Your task to perform on an android device: search for starred emails in the gmail app Image 0: 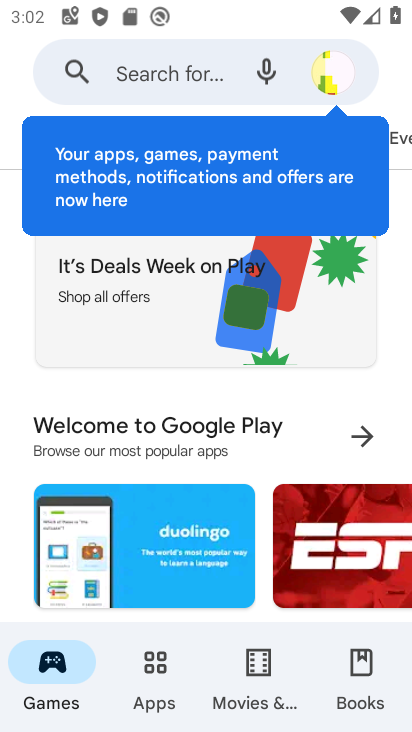
Step 0: press home button
Your task to perform on an android device: search for starred emails in the gmail app Image 1: 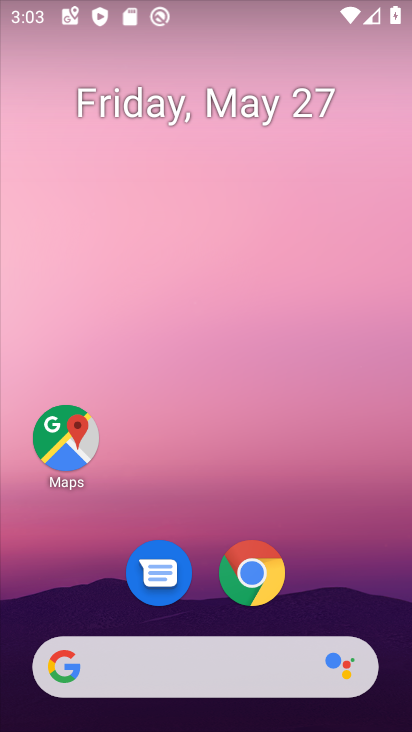
Step 1: drag from (224, 506) to (256, 32)
Your task to perform on an android device: search for starred emails in the gmail app Image 2: 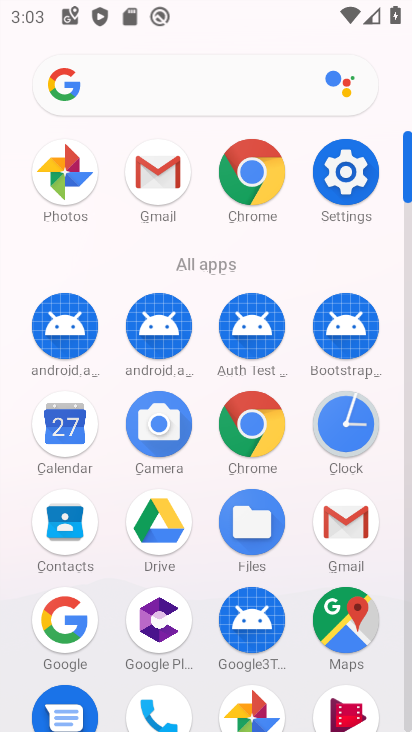
Step 2: click (161, 170)
Your task to perform on an android device: search for starred emails in the gmail app Image 3: 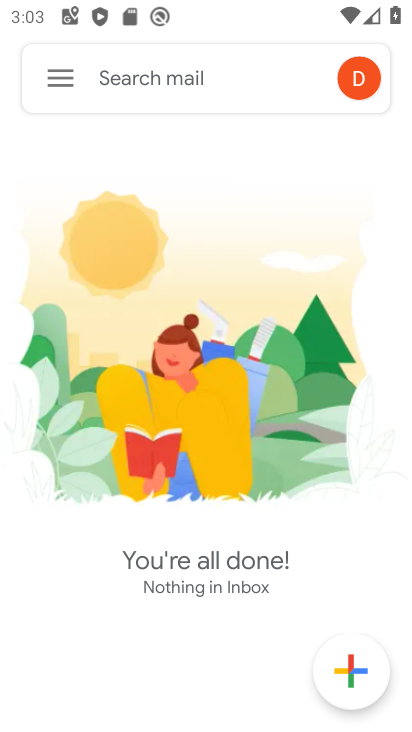
Step 3: click (53, 71)
Your task to perform on an android device: search for starred emails in the gmail app Image 4: 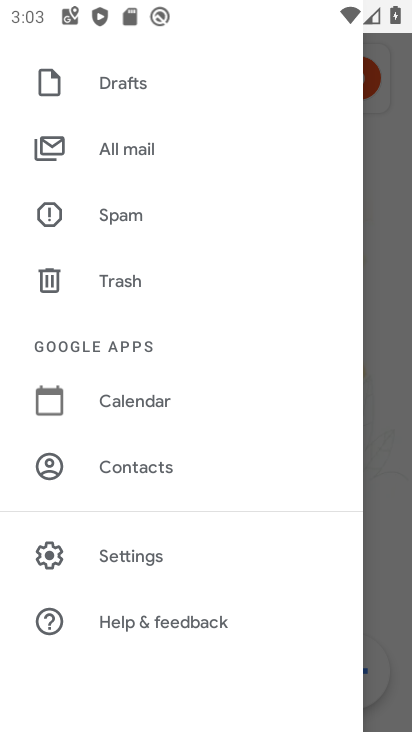
Step 4: drag from (200, 160) to (63, 640)
Your task to perform on an android device: search for starred emails in the gmail app Image 5: 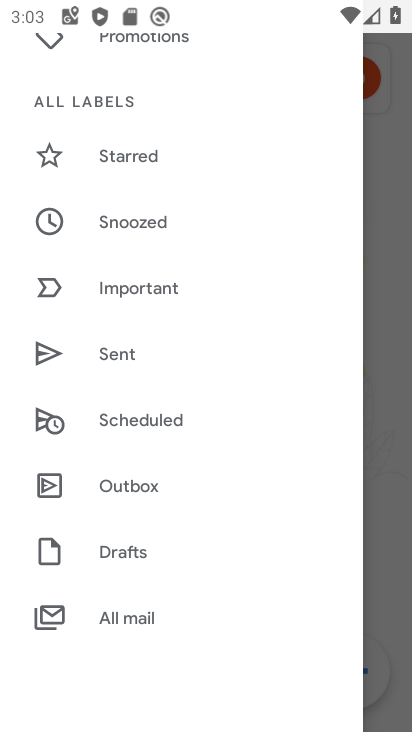
Step 5: drag from (212, 225) to (234, 609)
Your task to perform on an android device: search for starred emails in the gmail app Image 6: 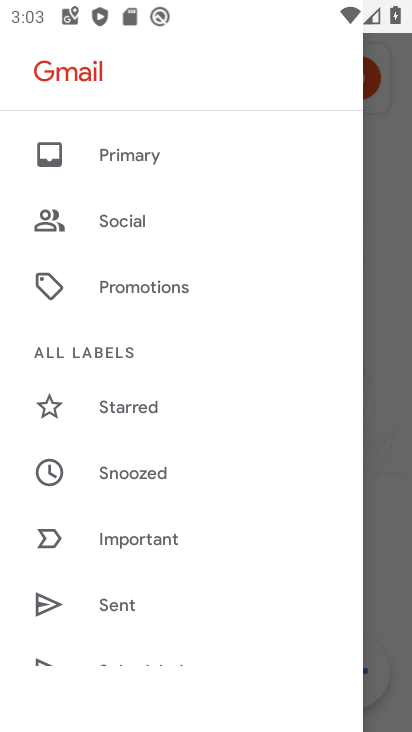
Step 6: click (146, 405)
Your task to perform on an android device: search for starred emails in the gmail app Image 7: 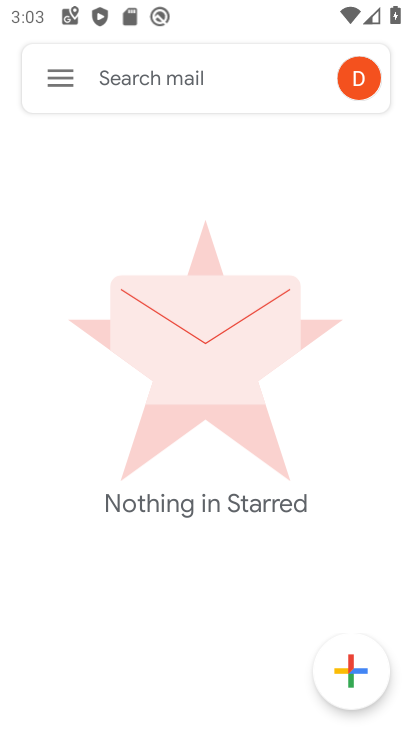
Step 7: task complete